Your task to perform on an android device: Open the Play Movies app and select the watchlist tab. Image 0: 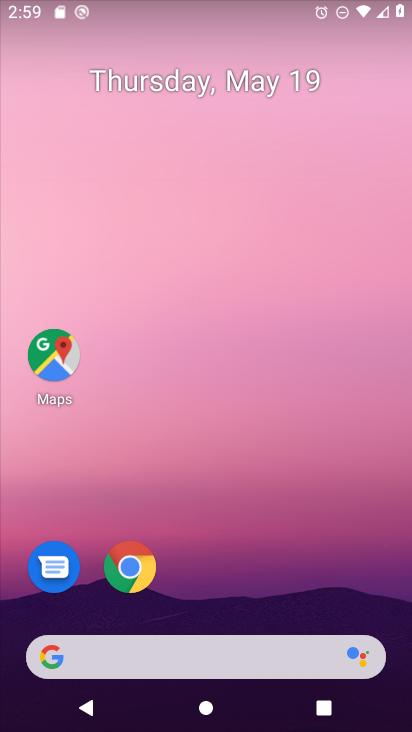
Step 0: drag from (249, 535) to (205, 90)
Your task to perform on an android device: Open the Play Movies app and select the watchlist tab. Image 1: 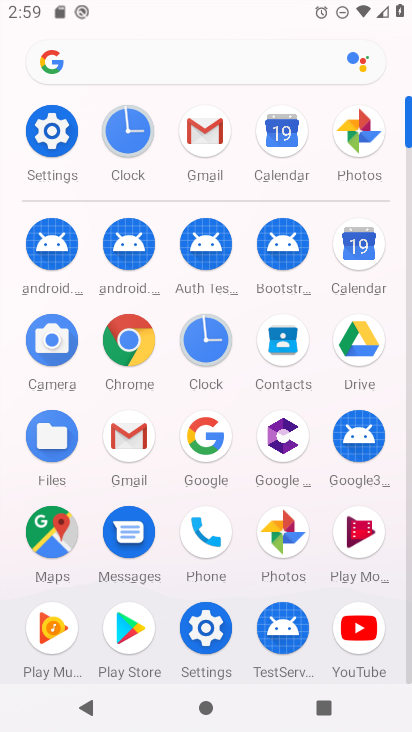
Step 1: click (356, 530)
Your task to perform on an android device: Open the Play Movies app and select the watchlist tab. Image 2: 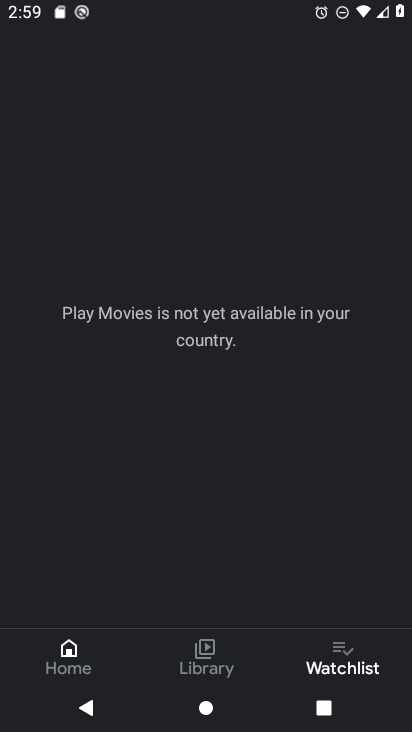
Step 2: click (349, 660)
Your task to perform on an android device: Open the Play Movies app and select the watchlist tab. Image 3: 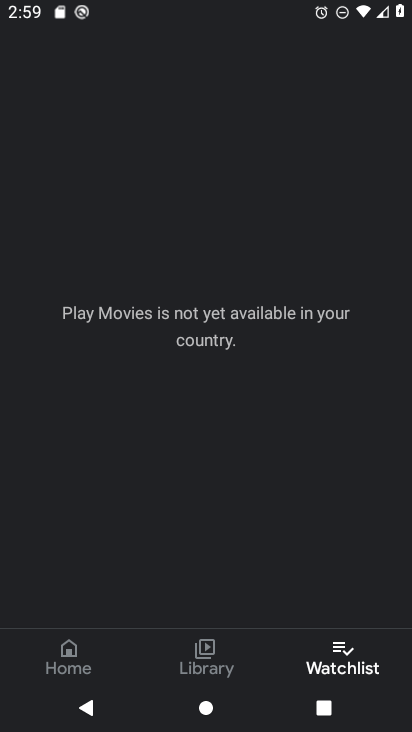
Step 3: task complete